Your task to perform on an android device: clear history in the chrome app Image 0: 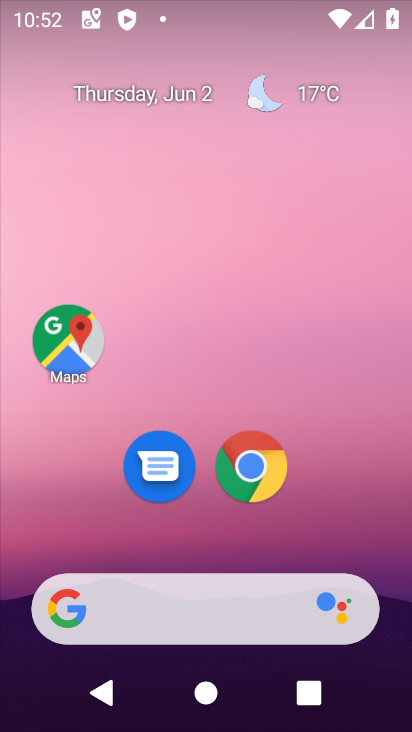
Step 0: click (251, 462)
Your task to perform on an android device: clear history in the chrome app Image 1: 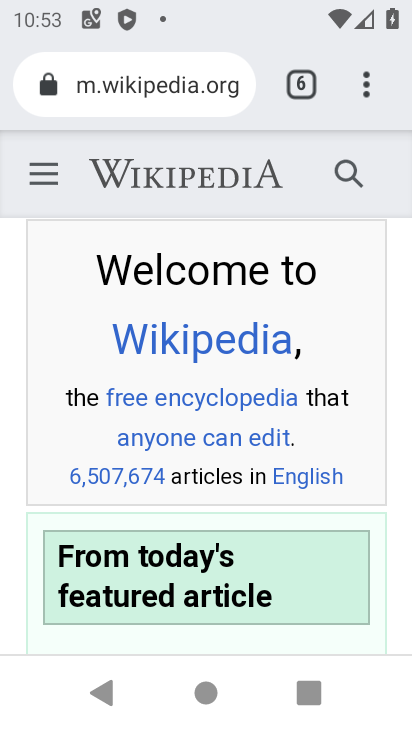
Step 1: click (351, 93)
Your task to perform on an android device: clear history in the chrome app Image 2: 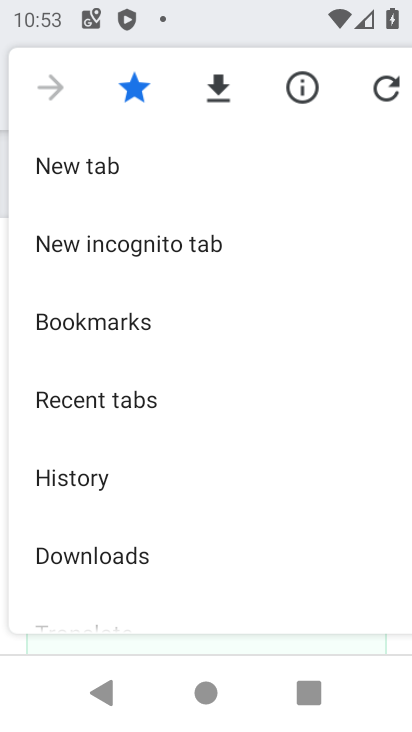
Step 2: click (108, 465)
Your task to perform on an android device: clear history in the chrome app Image 3: 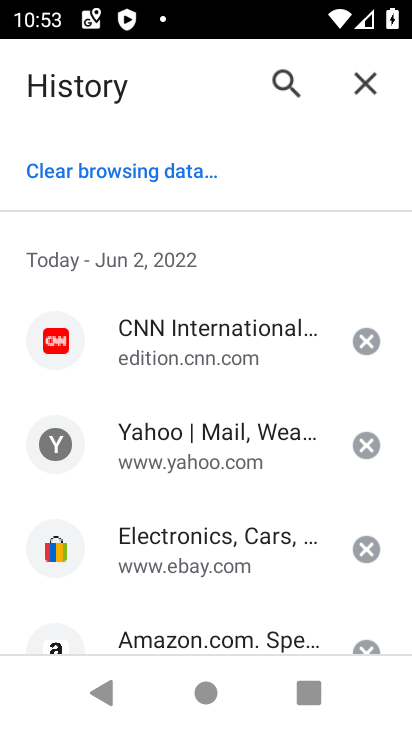
Step 3: click (147, 178)
Your task to perform on an android device: clear history in the chrome app Image 4: 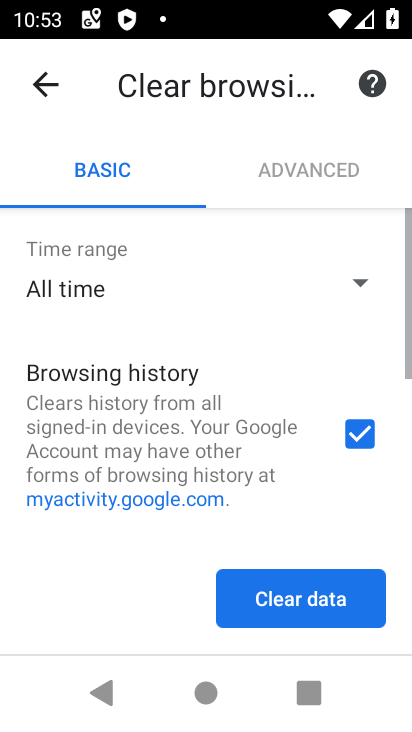
Step 4: click (277, 603)
Your task to perform on an android device: clear history in the chrome app Image 5: 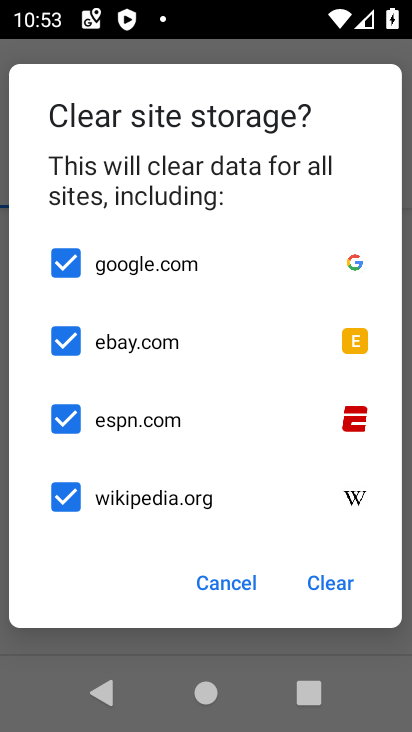
Step 5: click (332, 581)
Your task to perform on an android device: clear history in the chrome app Image 6: 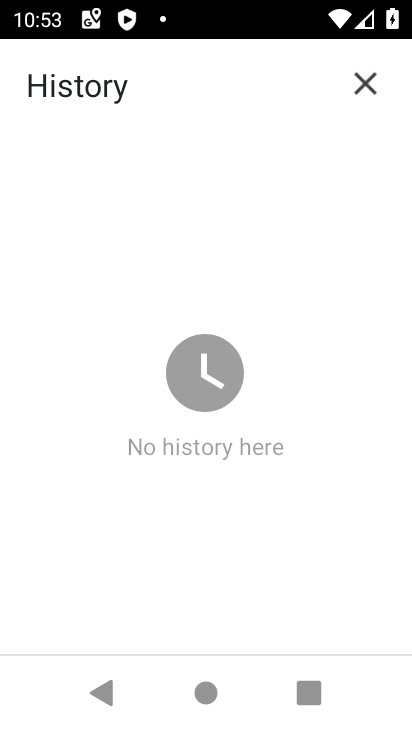
Step 6: task complete